Your task to perform on an android device: turn on airplane mode Image 0: 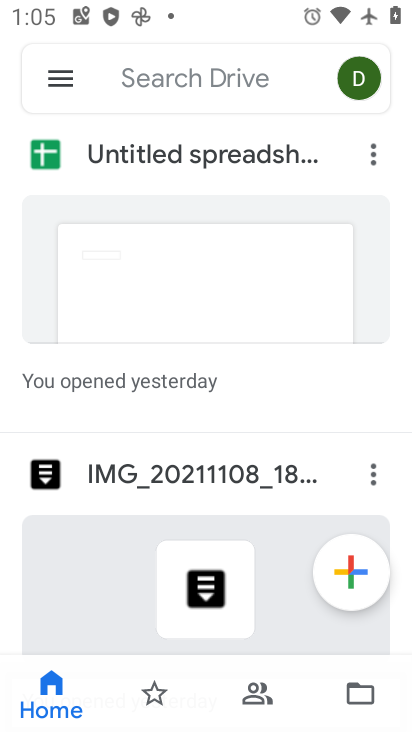
Step 0: press home button
Your task to perform on an android device: turn on airplane mode Image 1: 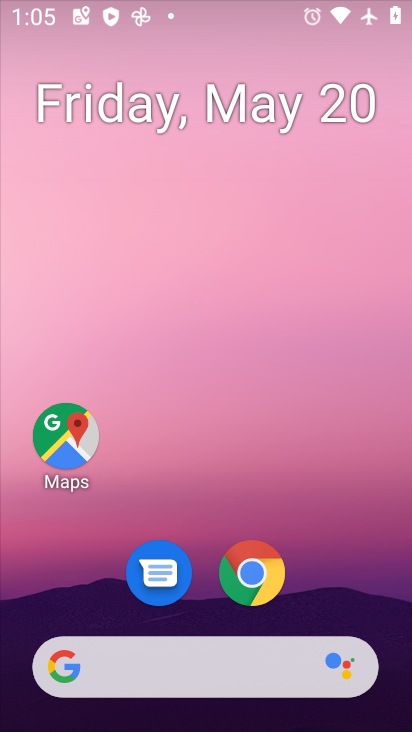
Step 1: drag from (297, 597) to (308, 69)
Your task to perform on an android device: turn on airplane mode Image 2: 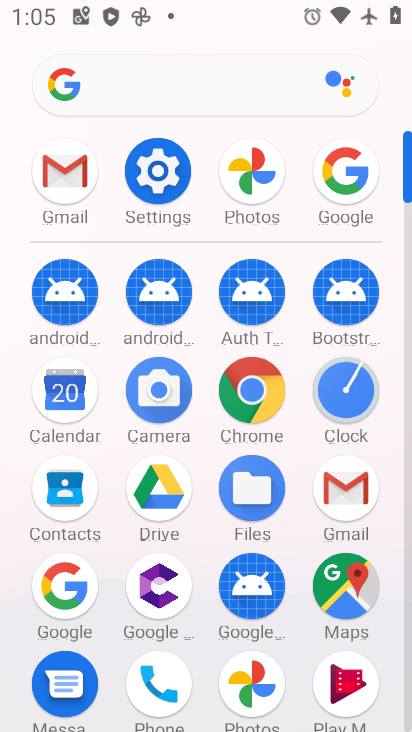
Step 2: click (159, 165)
Your task to perform on an android device: turn on airplane mode Image 3: 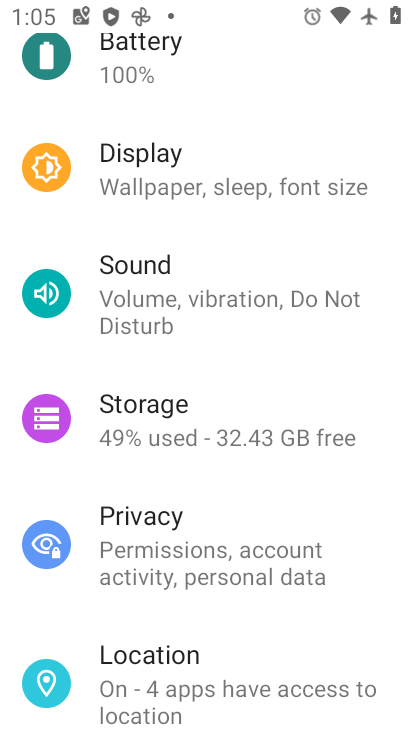
Step 3: drag from (197, 162) to (298, 700)
Your task to perform on an android device: turn on airplane mode Image 4: 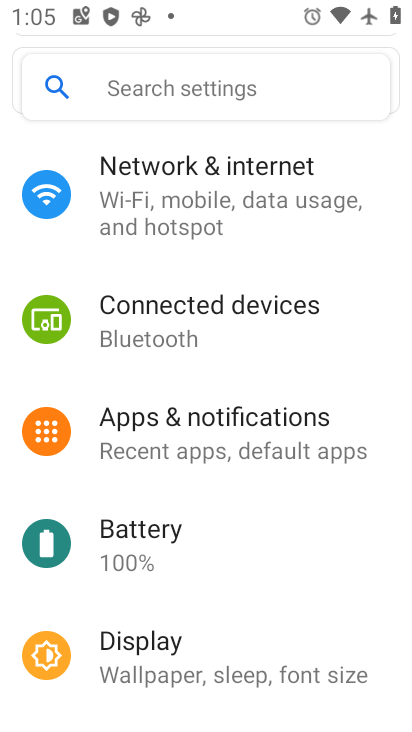
Step 4: drag from (177, 179) to (184, 212)
Your task to perform on an android device: turn on airplane mode Image 5: 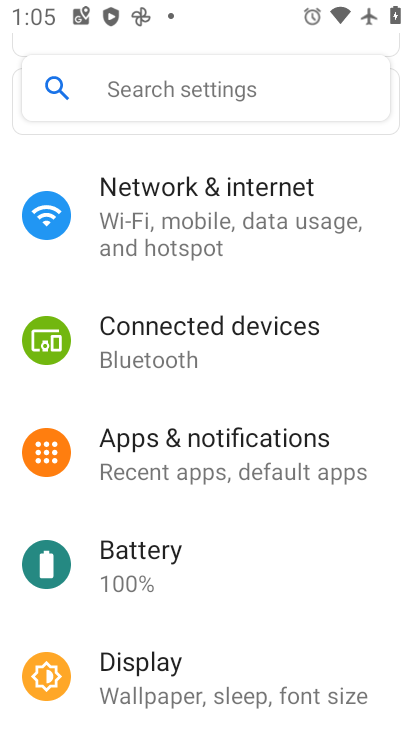
Step 5: click (184, 212)
Your task to perform on an android device: turn on airplane mode Image 6: 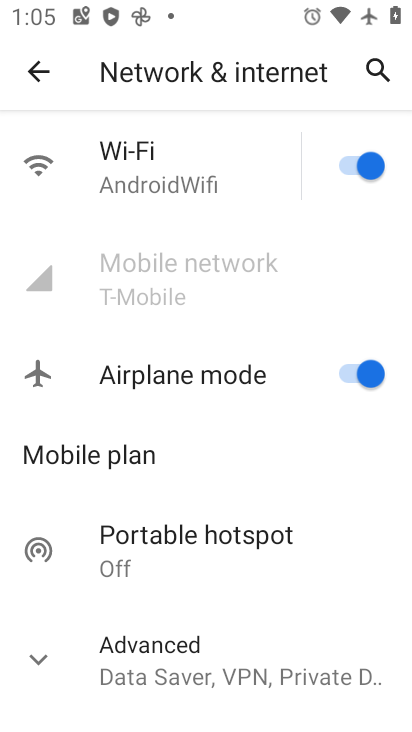
Step 6: task complete